Your task to perform on an android device: Turn on the flashlight Image 0: 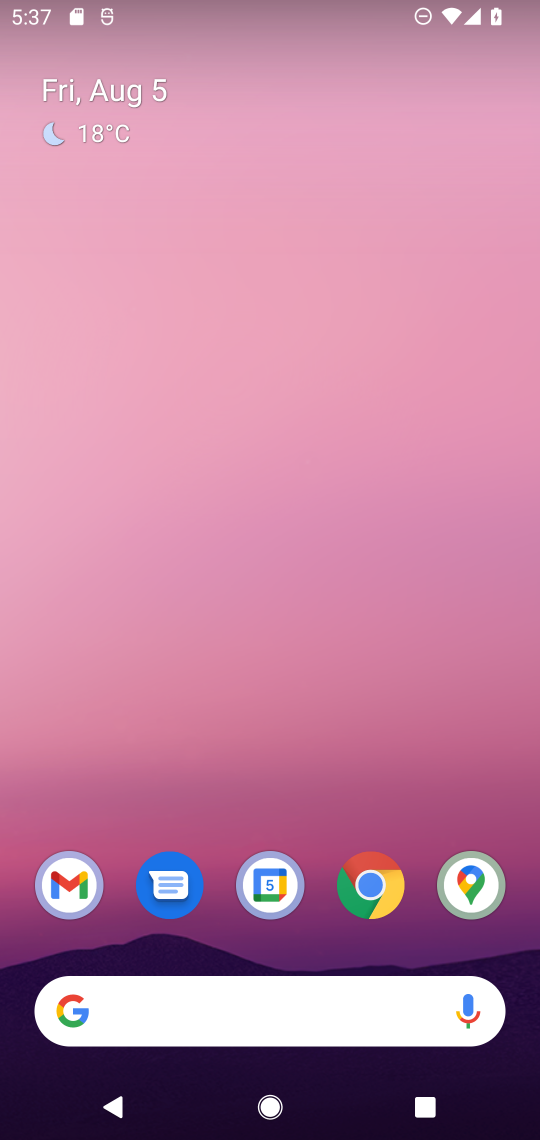
Step 0: drag from (328, 768) to (328, 53)
Your task to perform on an android device: Turn on the flashlight Image 1: 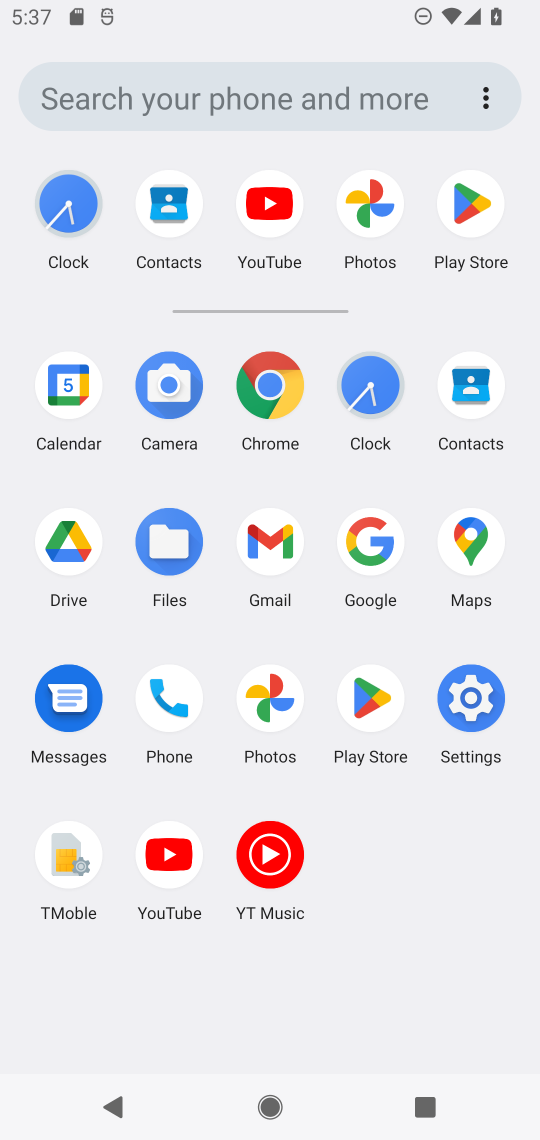
Step 1: click (465, 703)
Your task to perform on an android device: Turn on the flashlight Image 2: 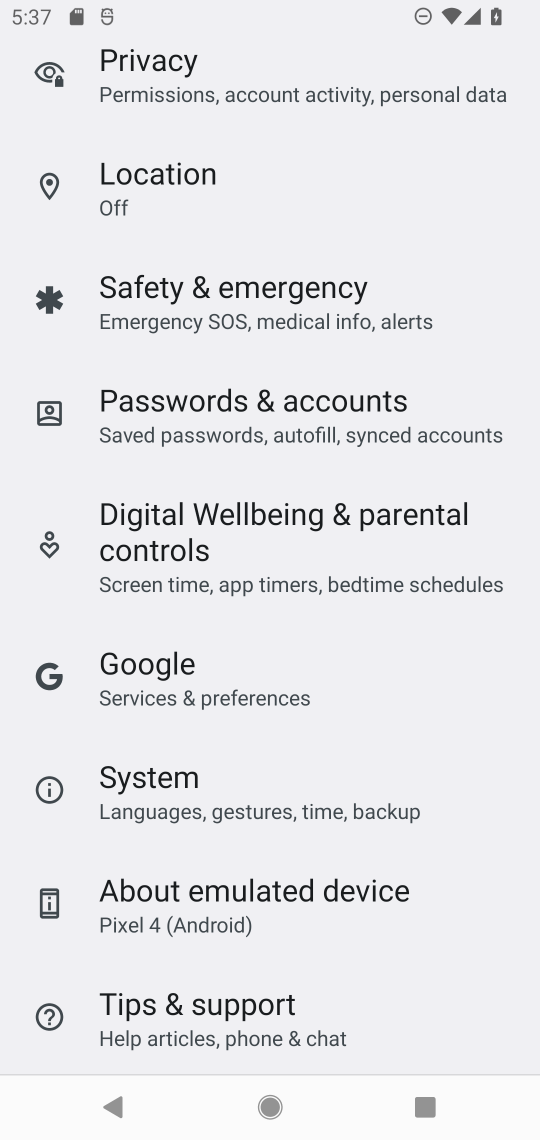
Step 2: task complete